Your task to perform on an android device: Toggle the flashlight Image 0: 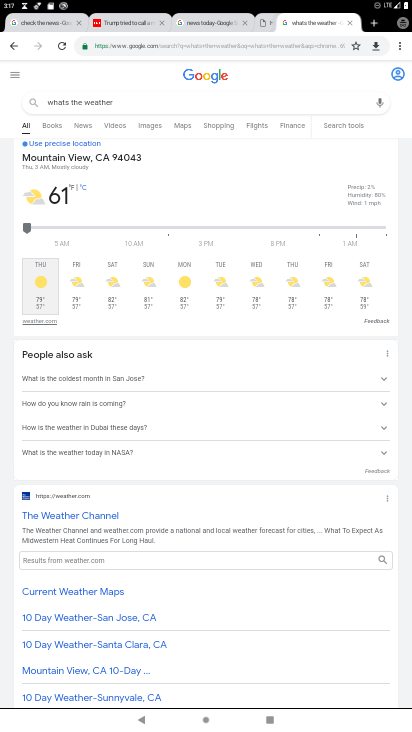
Step 0: press home button
Your task to perform on an android device: Toggle the flashlight Image 1: 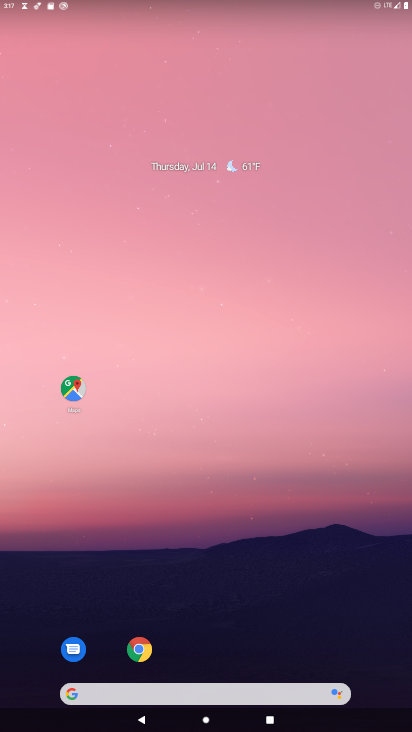
Step 1: task complete